Your task to perform on an android device: turn off location history Image 0: 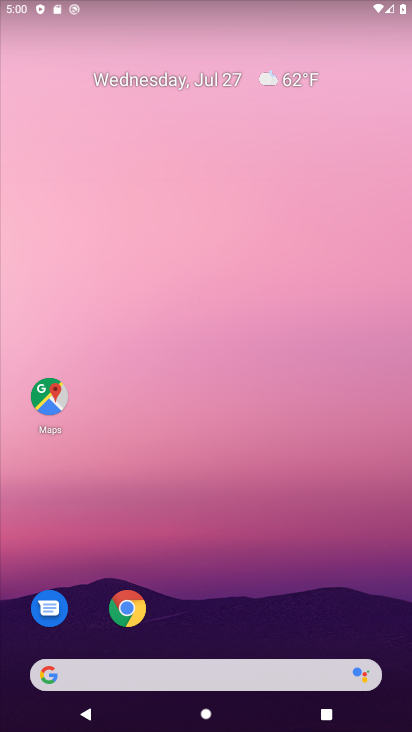
Step 0: drag from (183, 618) to (116, 32)
Your task to perform on an android device: turn off location history Image 1: 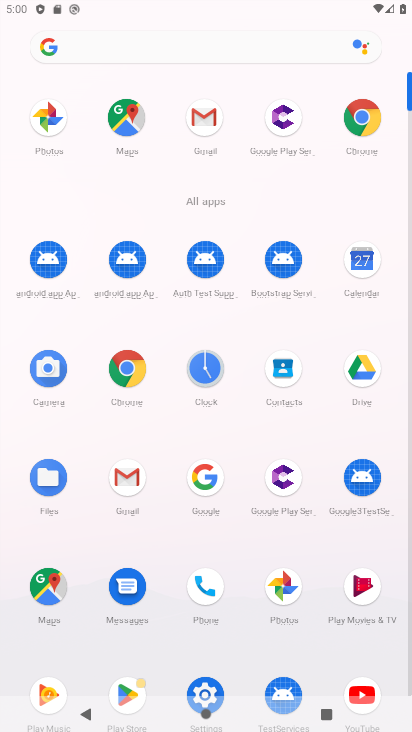
Step 1: click (204, 678)
Your task to perform on an android device: turn off location history Image 2: 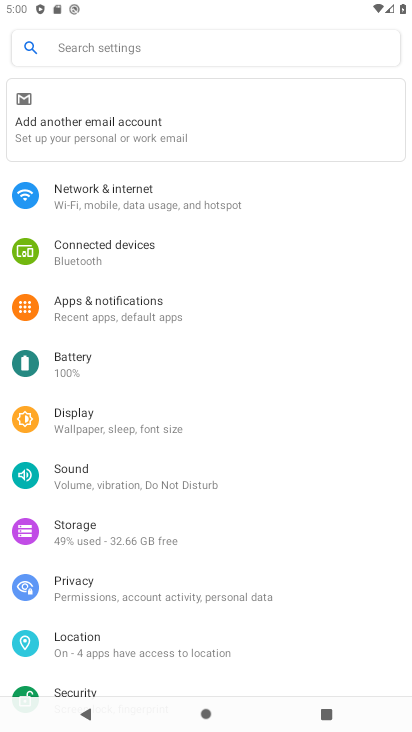
Step 2: click (85, 641)
Your task to perform on an android device: turn off location history Image 3: 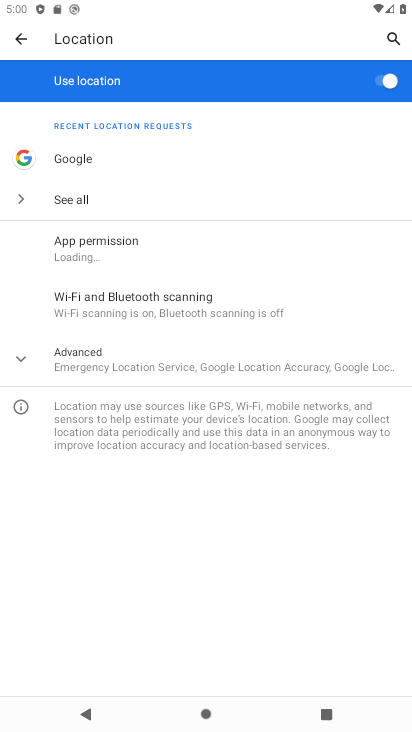
Step 3: click (75, 376)
Your task to perform on an android device: turn off location history Image 4: 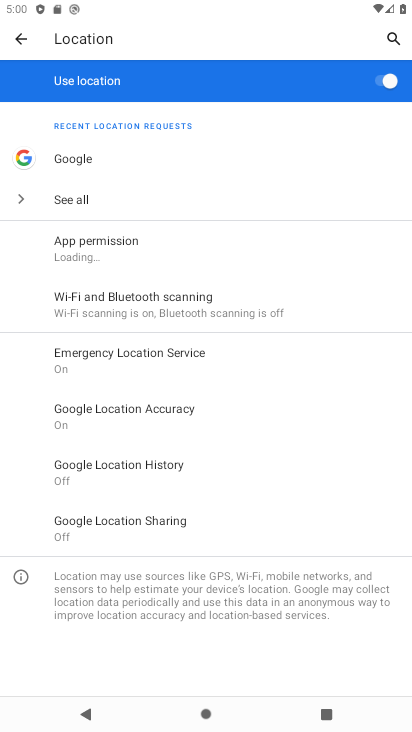
Step 4: click (101, 481)
Your task to perform on an android device: turn off location history Image 5: 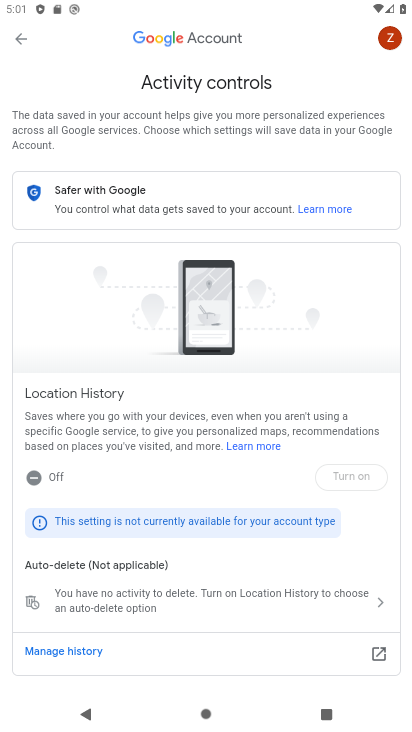
Step 5: task complete